Your task to perform on an android device: add a contact in the contacts app Image 0: 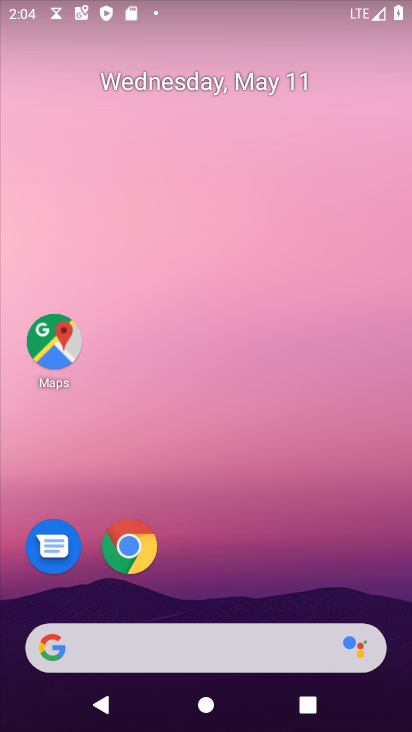
Step 0: drag from (302, 630) to (265, 80)
Your task to perform on an android device: add a contact in the contacts app Image 1: 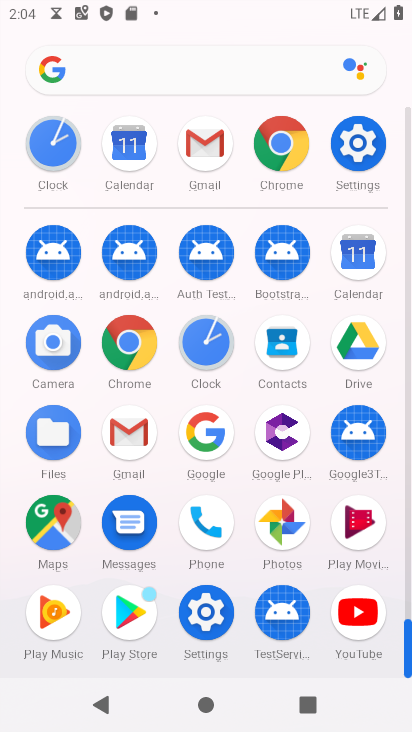
Step 1: click (289, 339)
Your task to perform on an android device: add a contact in the contacts app Image 2: 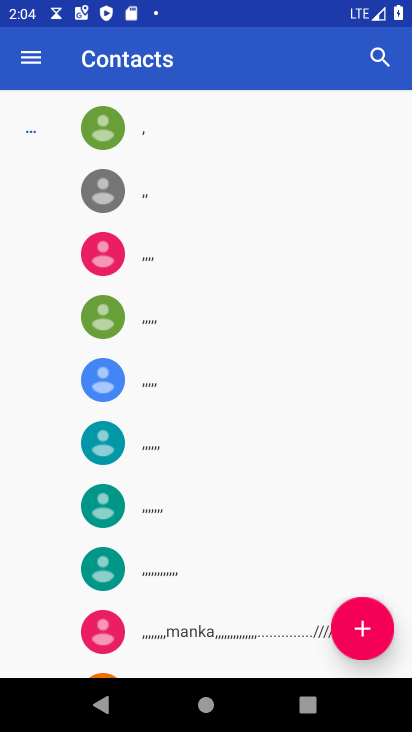
Step 2: click (369, 626)
Your task to perform on an android device: add a contact in the contacts app Image 3: 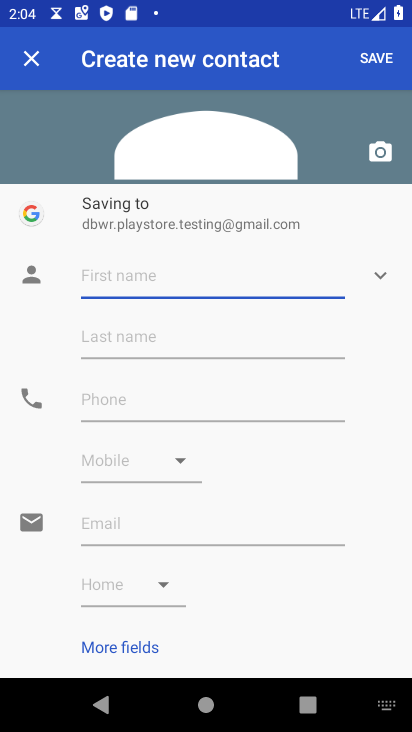
Step 3: type "dfghnbvcx"
Your task to perform on an android device: add a contact in the contacts app Image 4: 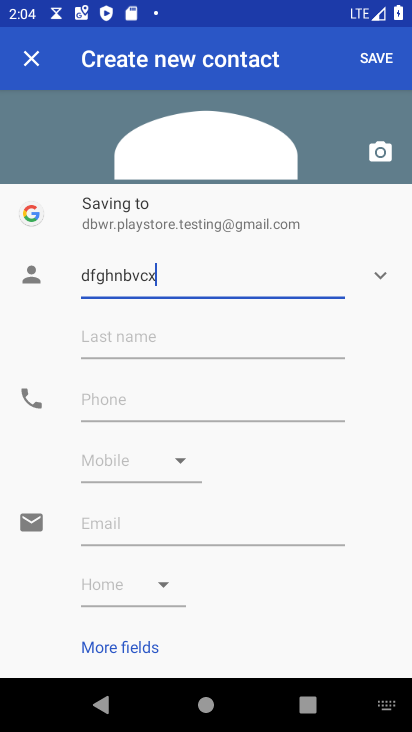
Step 4: click (198, 403)
Your task to perform on an android device: add a contact in the contacts app Image 5: 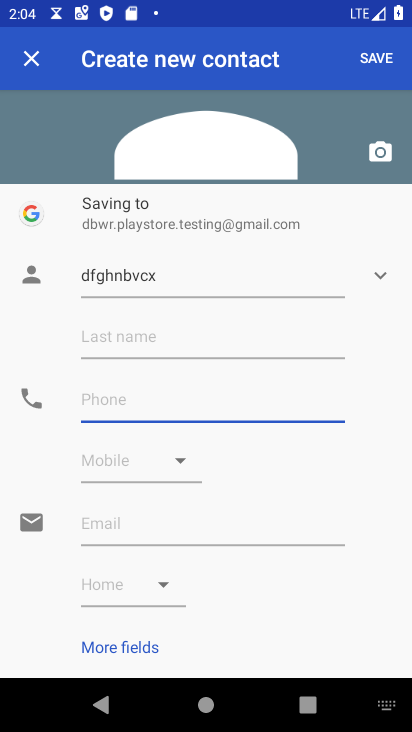
Step 5: type "6545678766"
Your task to perform on an android device: add a contact in the contacts app Image 6: 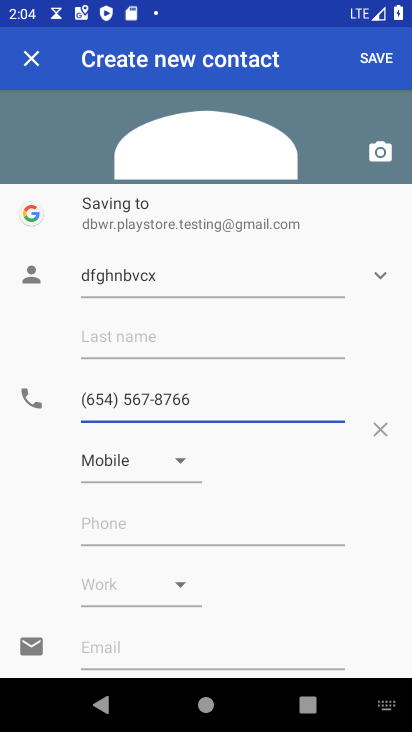
Step 6: click (375, 56)
Your task to perform on an android device: add a contact in the contacts app Image 7: 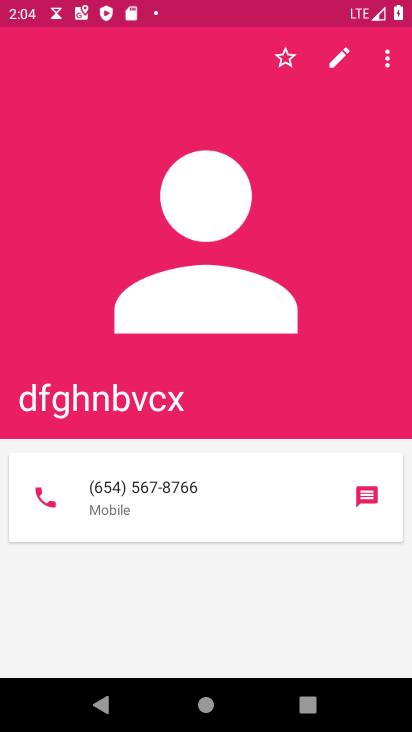
Step 7: task complete